Your task to perform on an android device: turn on javascript in the chrome app Image 0: 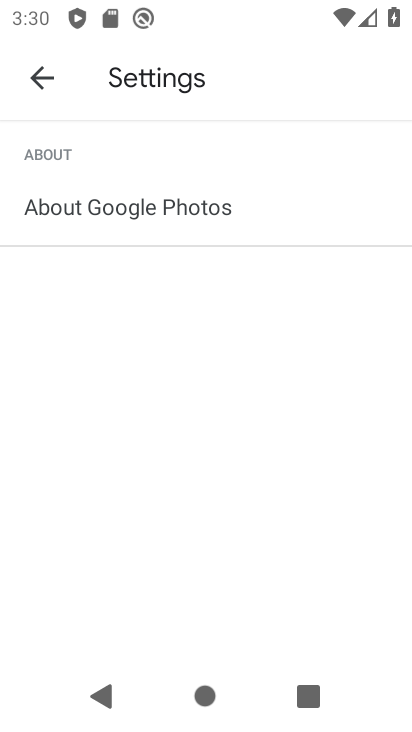
Step 0: press home button
Your task to perform on an android device: turn on javascript in the chrome app Image 1: 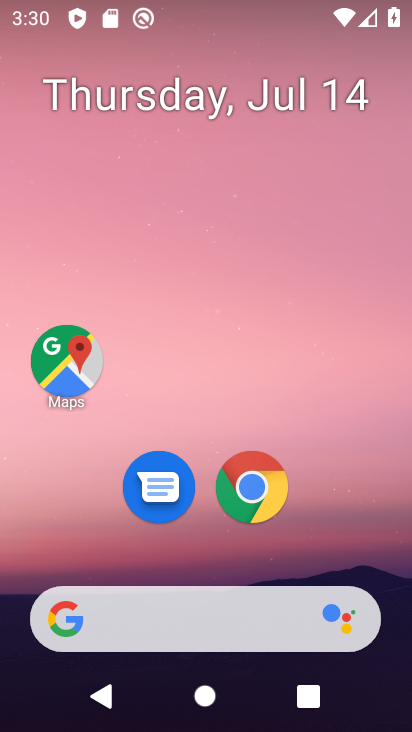
Step 1: drag from (237, 622) to (262, 113)
Your task to perform on an android device: turn on javascript in the chrome app Image 2: 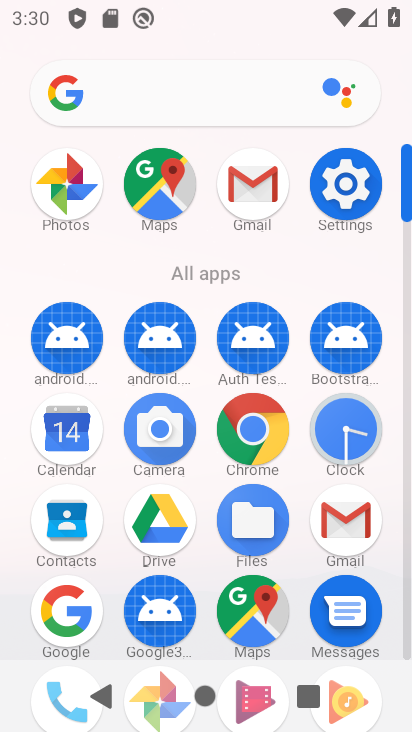
Step 2: click (249, 452)
Your task to perform on an android device: turn on javascript in the chrome app Image 3: 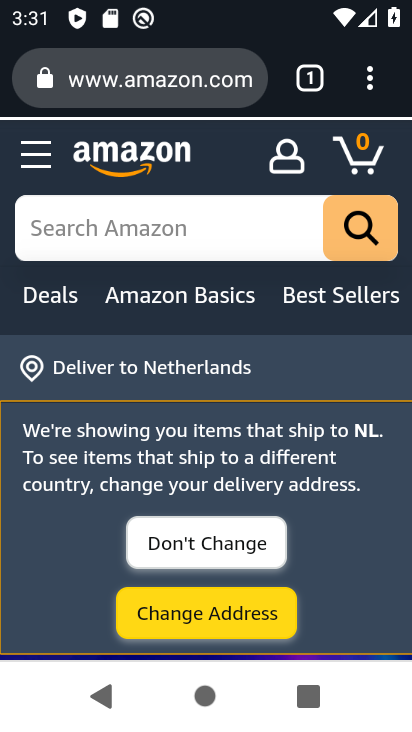
Step 3: click (371, 83)
Your task to perform on an android device: turn on javascript in the chrome app Image 4: 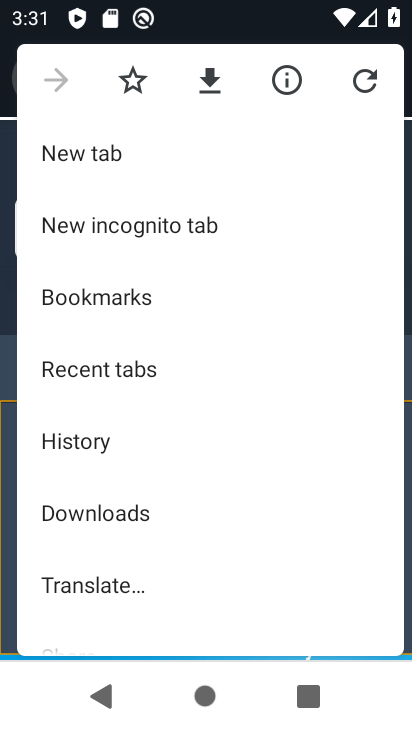
Step 4: drag from (173, 524) to (223, 221)
Your task to perform on an android device: turn on javascript in the chrome app Image 5: 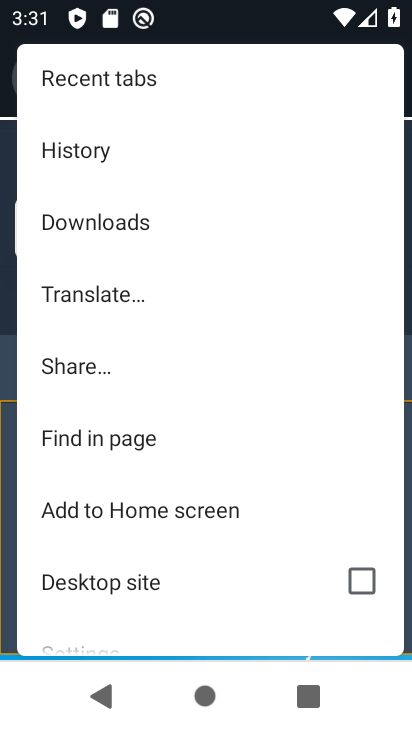
Step 5: drag from (155, 529) to (218, 270)
Your task to perform on an android device: turn on javascript in the chrome app Image 6: 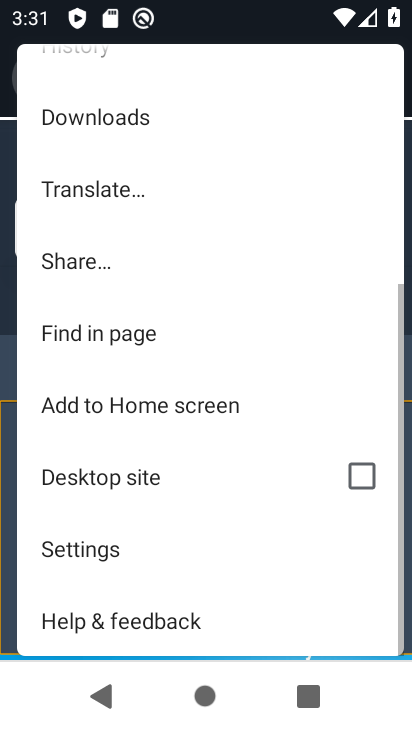
Step 6: click (124, 556)
Your task to perform on an android device: turn on javascript in the chrome app Image 7: 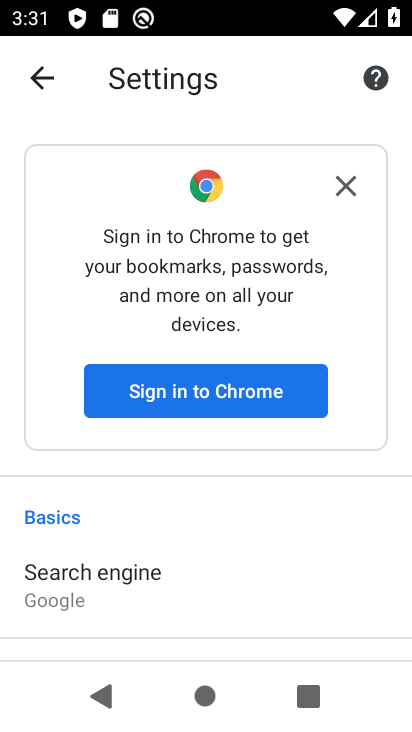
Step 7: drag from (176, 548) to (282, 129)
Your task to perform on an android device: turn on javascript in the chrome app Image 8: 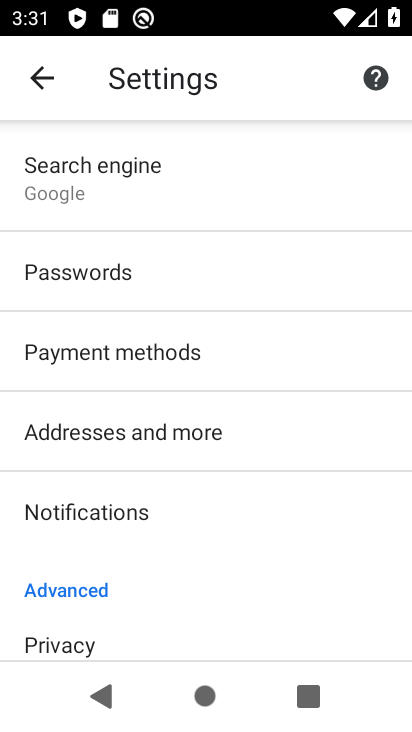
Step 8: drag from (275, 574) to (283, 194)
Your task to perform on an android device: turn on javascript in the chrome app Image 9: 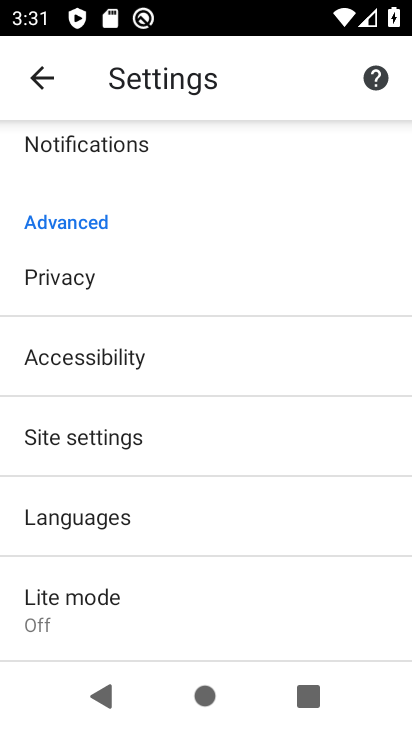
Step 9: click (131, 429)
Your task to perform on an android device: turn on javascript in the chrome app Image 10: 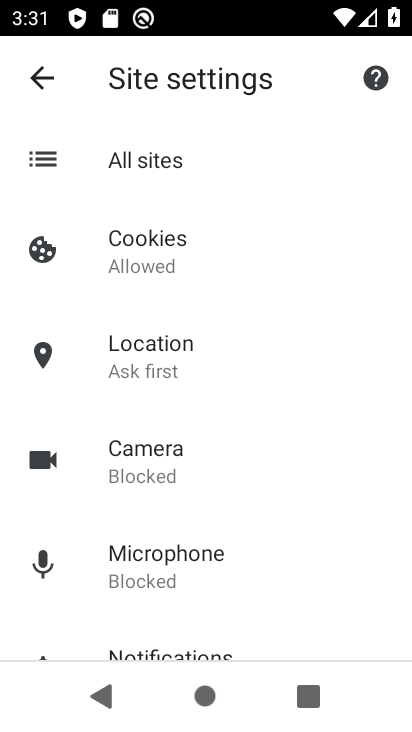
Step 10: drag from (181, 562) to (209, 344)
Your task to perform on an android device: turn on javascript in the chrome app Image 11: 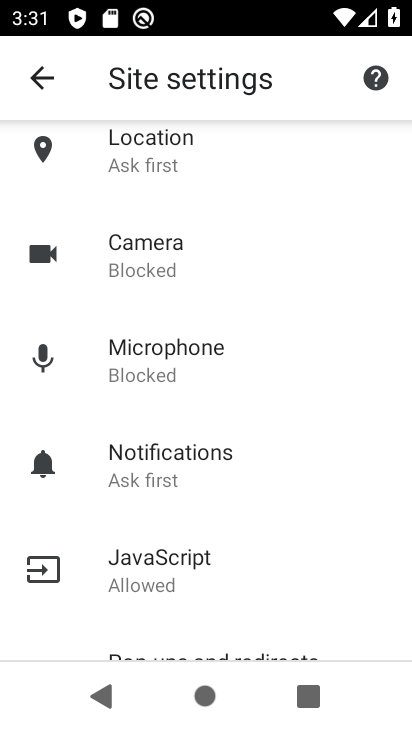
Step 11: click (183, 572)
Your task to perform on an android device: turn on javascript in the chrome app Image 12: 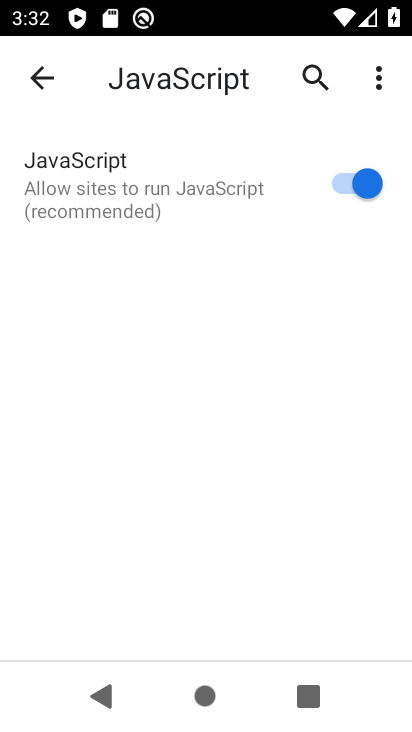
Step 12: task complete